Your task to perform on an android device: read, delete, or share a saved page in the chrome app Image 0: 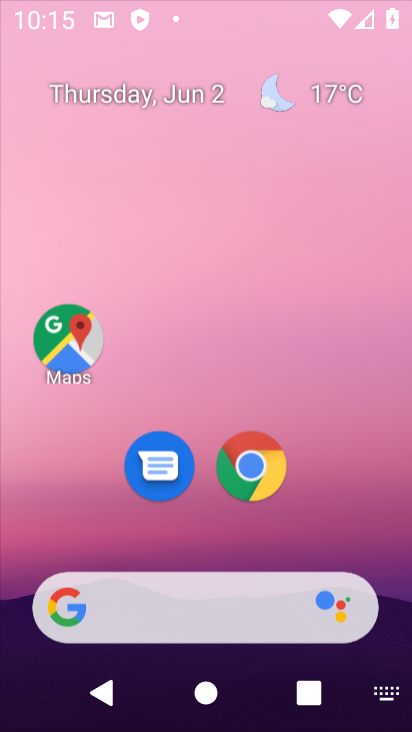
Step 0: press home button
Your task to perform on an android device: read, delete, or share a saved page in the chrome app Image 1: 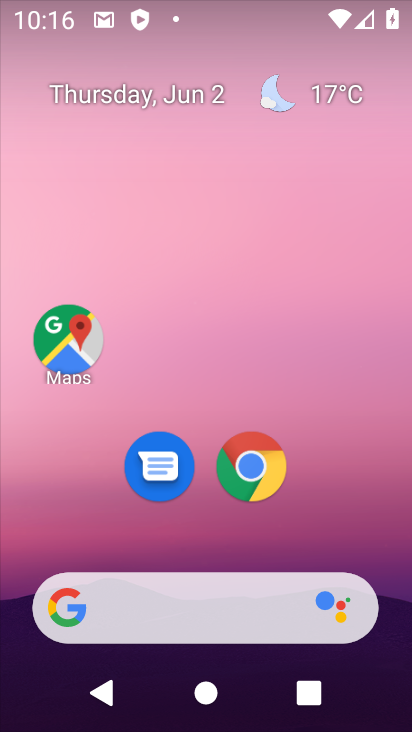
Step 1: click (258, 467)
Your task to perform on an android device: read, delete, or share a saved page in the chrome app Image 2: 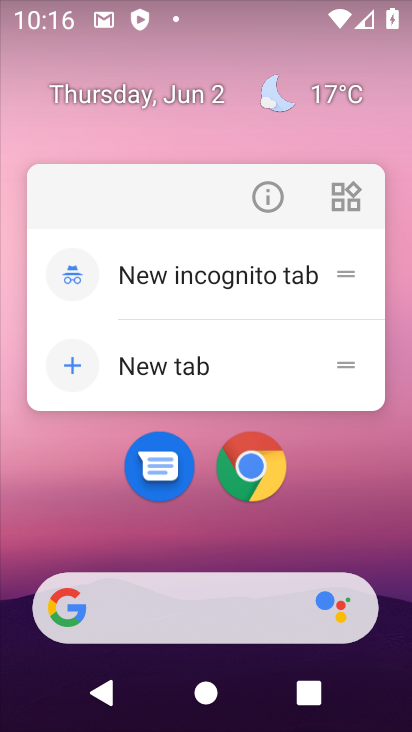
Step 2: click (255, 470)
Your task to perform on an android device: read, delete, or share a saved page in the chrome app Image 3: 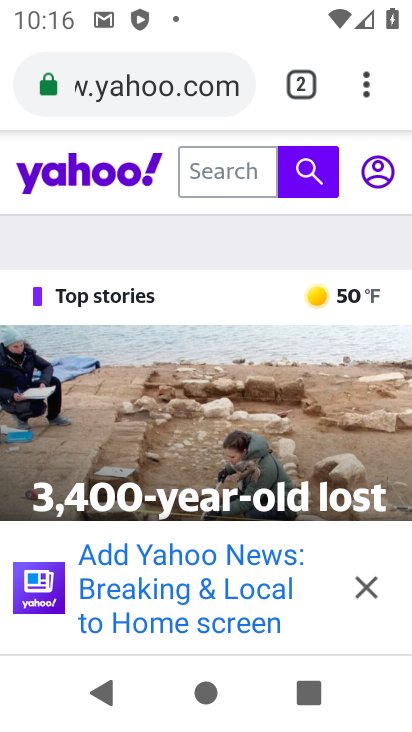
Step 3: drag from (367, 97) to (110, 435)
Your task to perform on an android device: read, delete, or share a saved page in the chrome app Image 4: 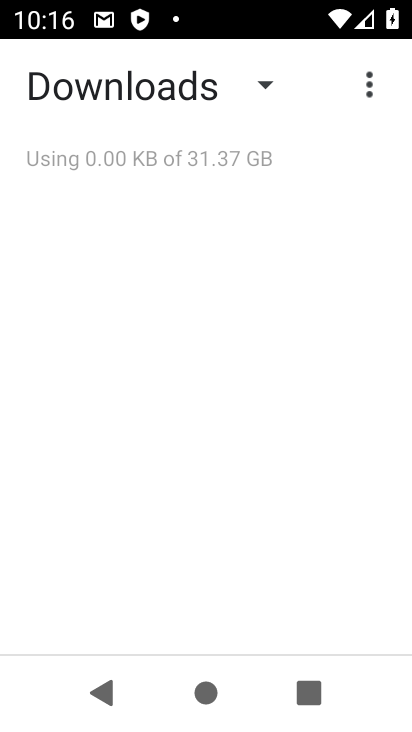
Step 4: click (269, 90)
Your task to perform on an android device: read, delete, or share a saved page in the chrome app Image 5: 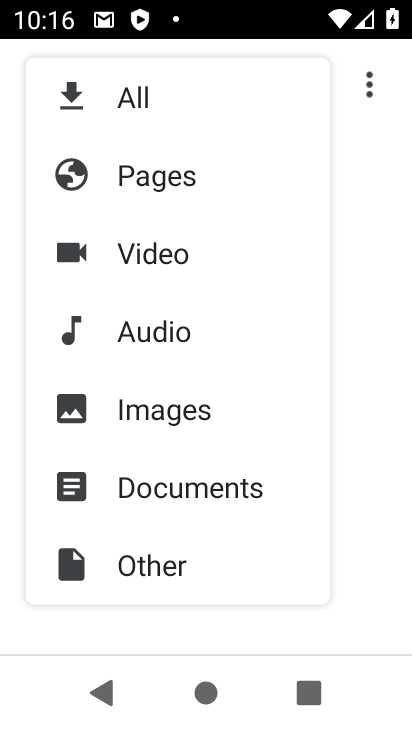
Step 5: click (164, 185)
Your task to perform on an android device: read, delete, or share a saved page in the chrome app Image 6: 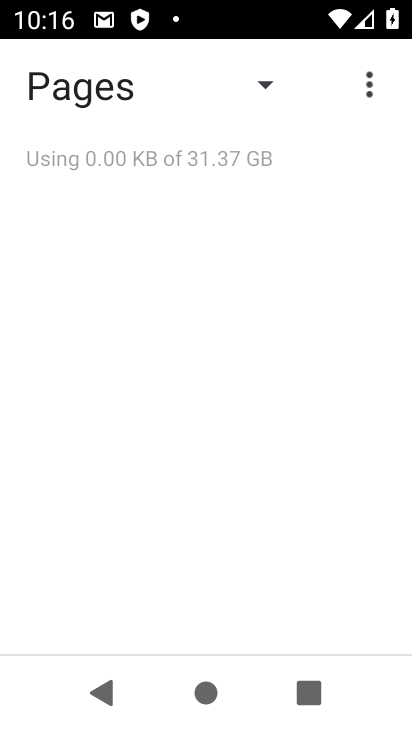
Step 6: task complete